Your task to perform on an android device: Go to settings Image 0: 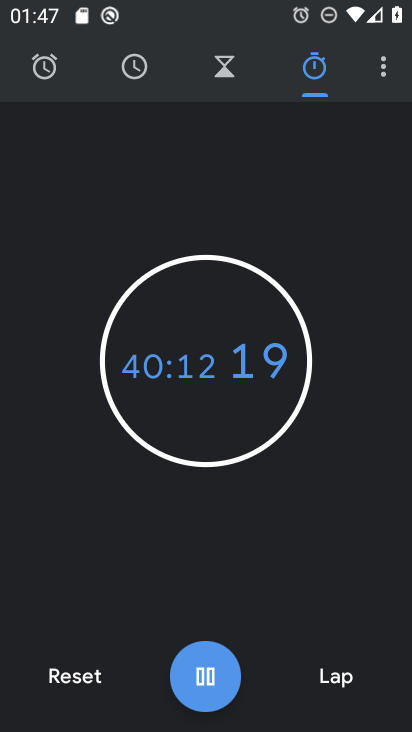
Step 0: press home button
Your task to perform on an android device: Go to settings Image 1: 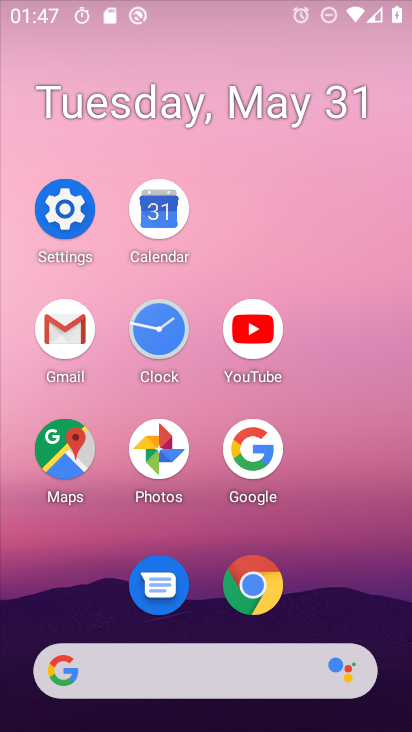
Step 1: click (82, 197)
Your task to perform on an android device: Go to settings Image 2: 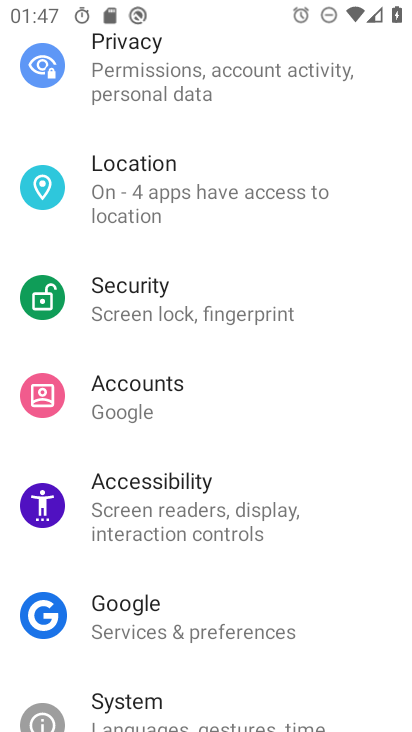
Step 2: task complete